Your task to perform on an android device: Open Google Maps and go to "Timeline" Image 0: 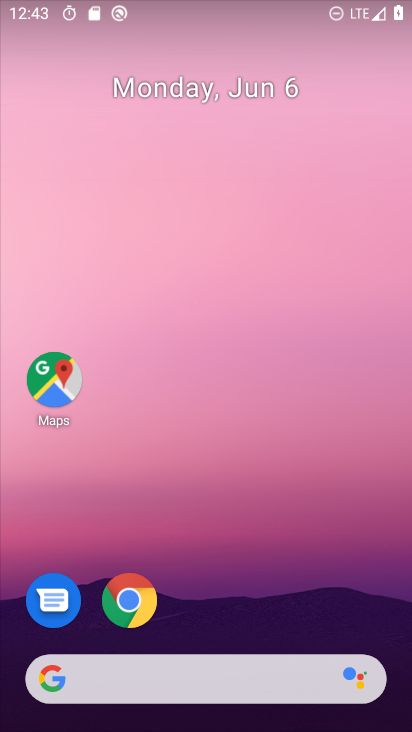
Step 0: click (66, 397)
Your task to perform on an android device: Open Google Maps and go to "Timeline" Image 1: 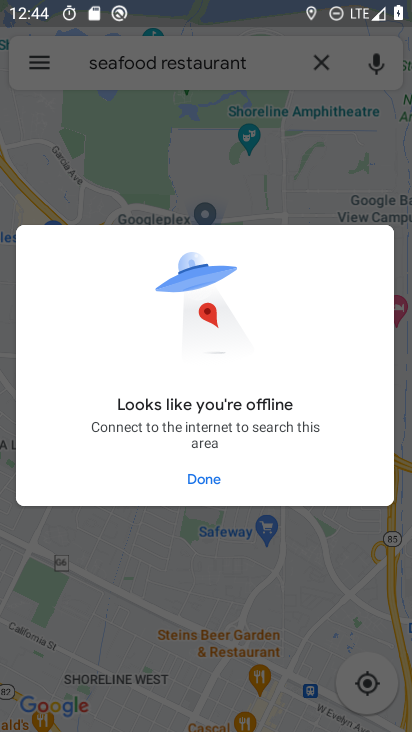
Step 1: click (222, 482)
Your task to perform on an android device: Open Google Maps and go to "Timeline" Image 2: 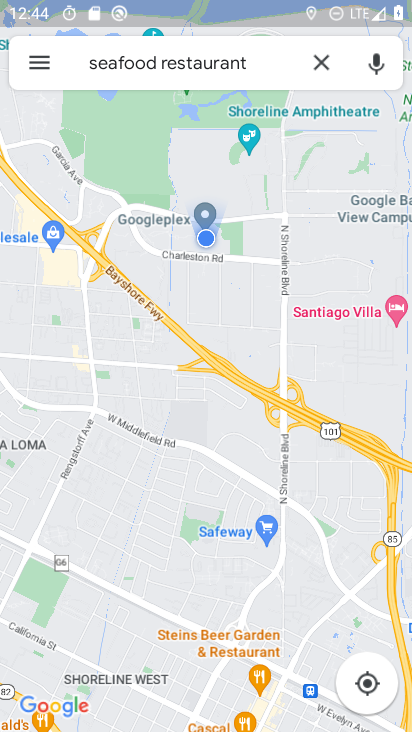
Step 2: click (30, 49)
Your task to perform on an android device: Open Google Maps and go to "Timeline" Image 3: 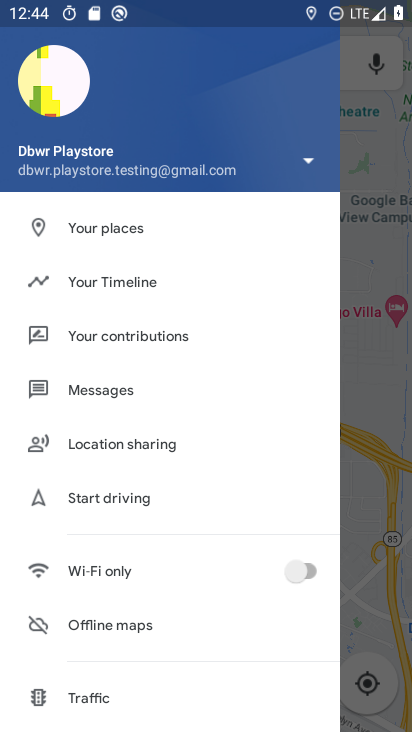
Step 3: click (96, 270)
Your task to perform on an android device: Open Google Maps and go to "Timeline" Image 4: 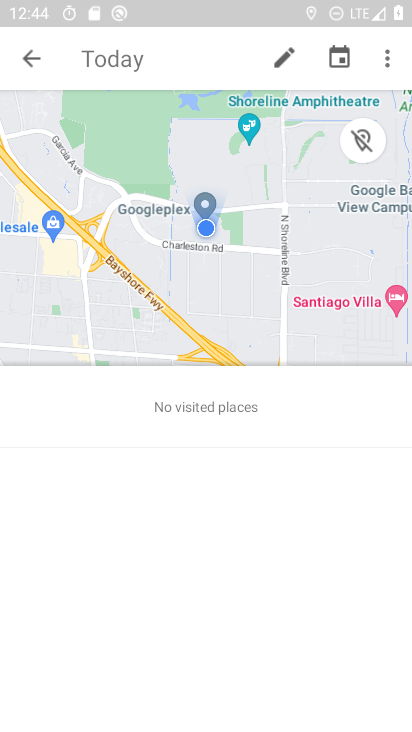
Step 4: task complete